Your task to perform on an android device: What's the weather today? Image 0: 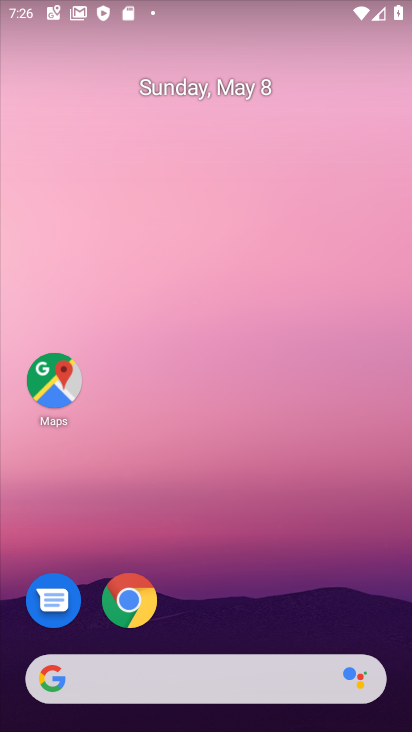
Step 0: drag from (195, 561) to (132, 283)
Your task to perform on an android device: What's the weather today? Image 1: 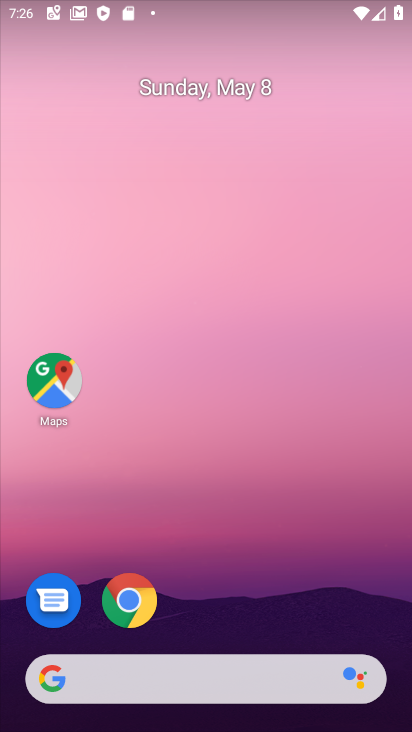
Step 1: drag from (267, 714) to (139, 178)
Your task to perform on an android device: What's the weather today? Image 2: 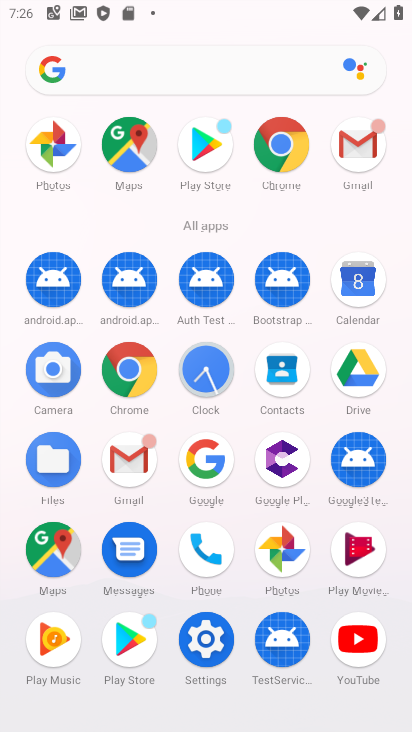
Step 2: click (136, 78)
Your task to perform on an android device: What's the weather today? Image 3: 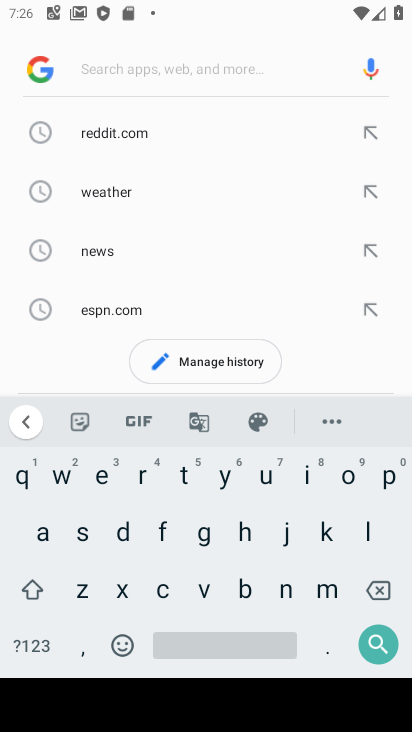
Step 3: click (133, 196)
Your task to perform on an android device: What's the weather today? Image 4: 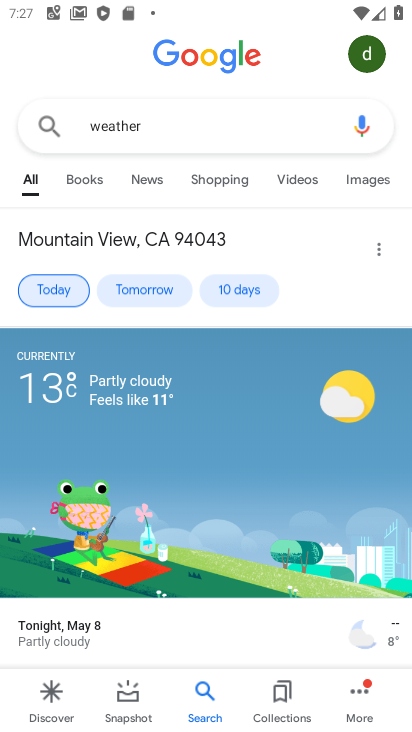
Step 4: click (56, 279)
Your task to perform on an android device: What's the weather today? Image 5: 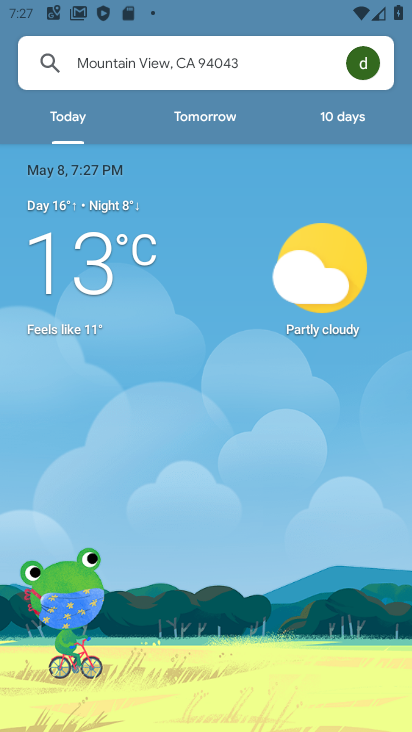
Step 5: task complete